Your task to perform on an android device: toggle notifications settings in the gmail app Image 0: 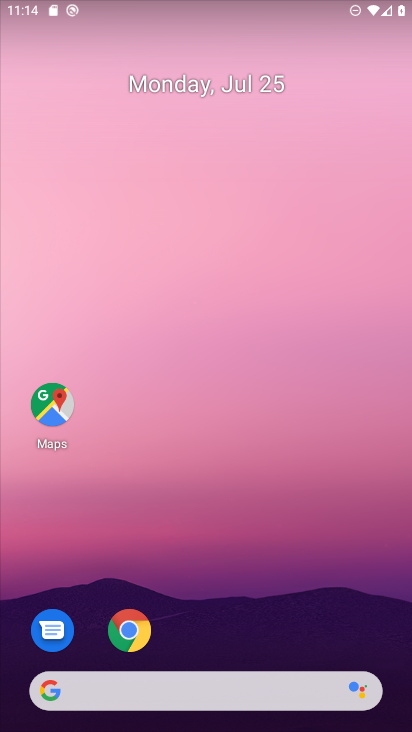
Step 0: drag from (223, 644) to (230, 63)
Your task to perform on an android device: toggle notifications settings in the gmail app Image 1: 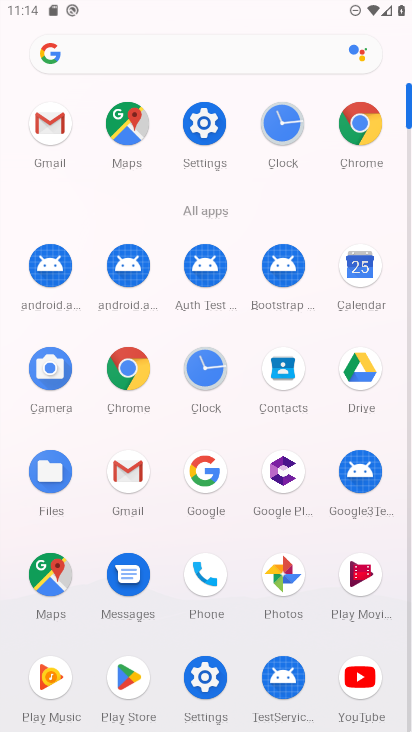
Step 1: click (51, 123)
Your task to perform on an android device: toggle notifications settings in the gmail app Image 2: 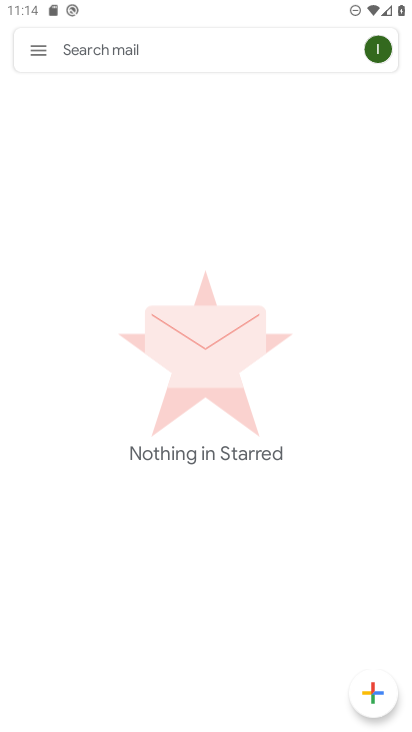
Step 2: click (42, 62)
Your task to perform on an android device: toggle notifications settings in the gmail app Image 3: 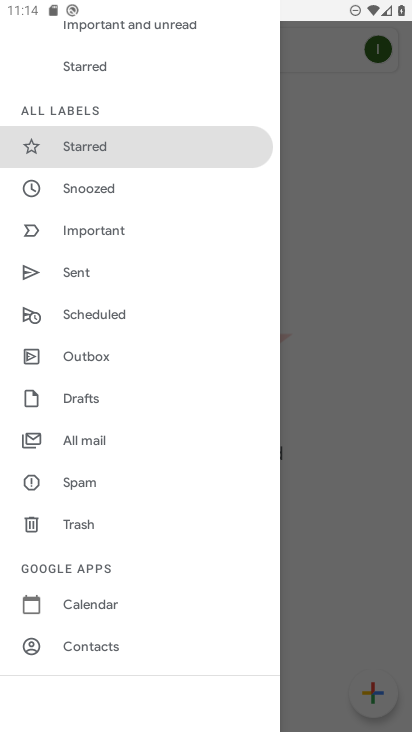
Step 3: drag from (102, 587) to (79, 339)
Your task to perform on an android device: toggle notifications settings in the gmail app Image 4: 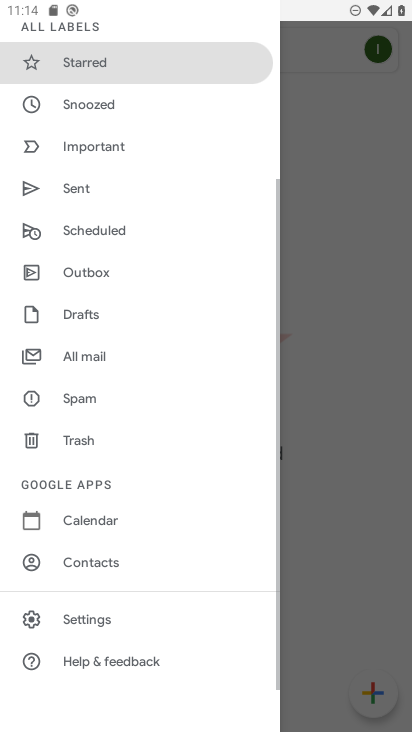
Step 4: click (85, 622)
Your task to perform on an android device: toggle notifications settings in the gmail app Image 5: 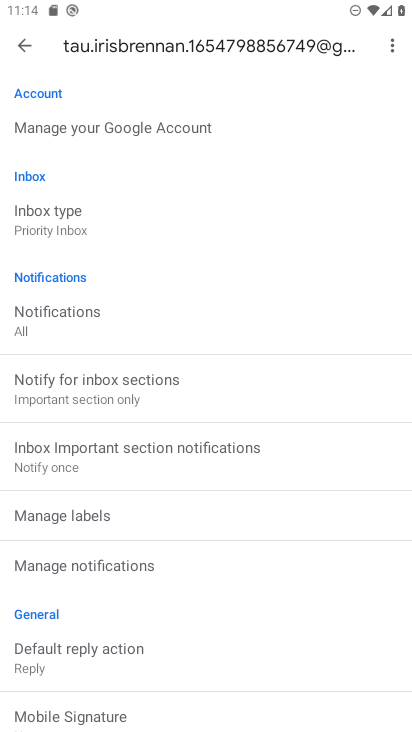
Step 5: click (23, 48)
Your task to perform on an android device: toggle notifications settings in the gmail app Image 6: 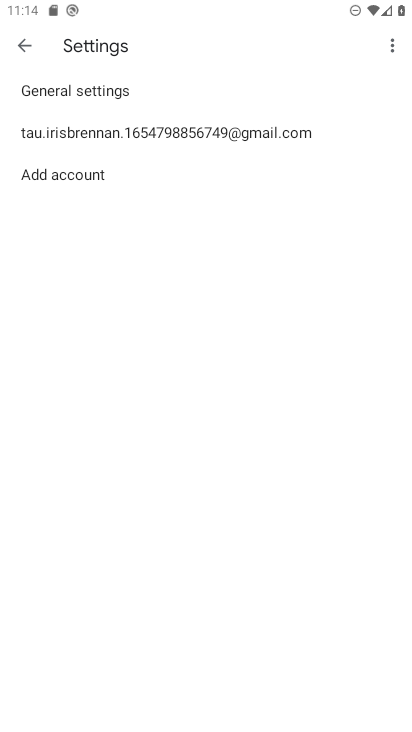
Step 6: click (59, 96)
Your task to perform on an android device: toggle notifications settings in the gmail app Image 7: 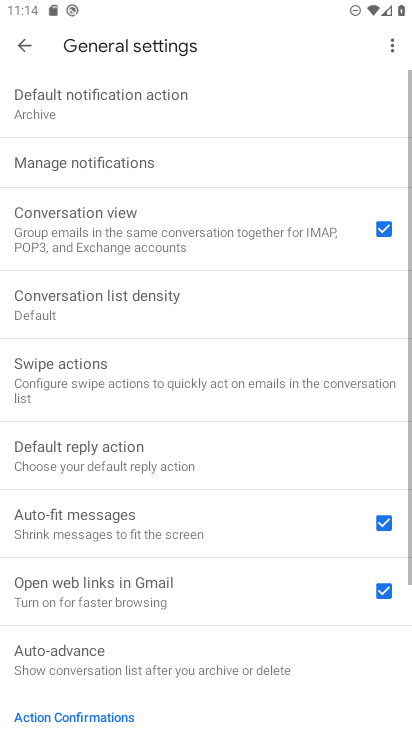
Step 7: click (71, 173)
Your task to perform on an android device: toggle notifications settings in the gmail app Image 8: 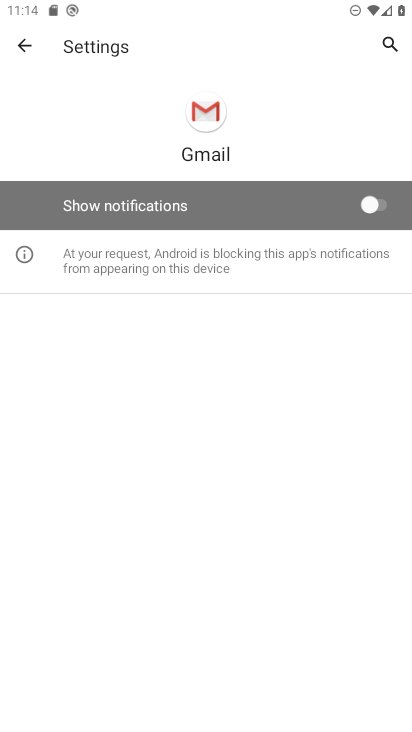
Step 8: click (367, 211)
Your task to perform on an android device: toggle notifications settings in the gmail app Image 9: 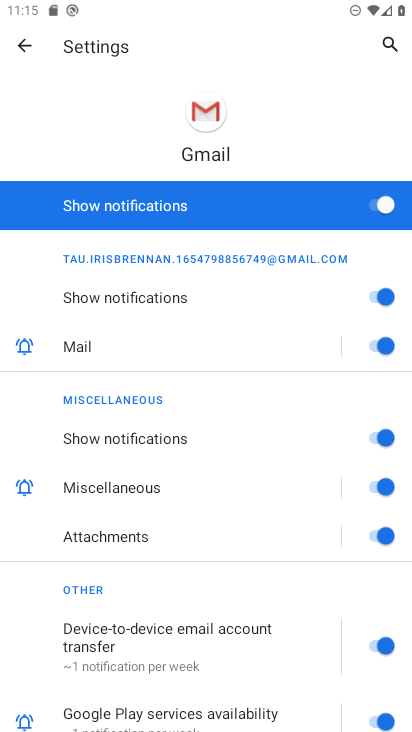
Step 9: task complete